Your task to perform on an android device: Open maps Image 0: 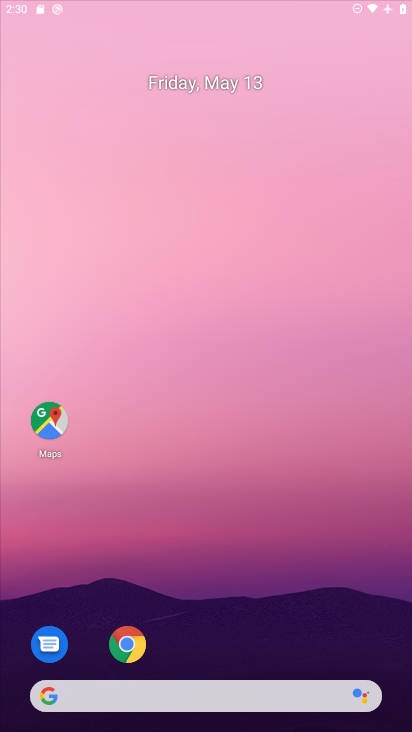
Step 0: drag from (350, 636) to (215, 41)
Your task to perform on an android device: Open maps Image 1: 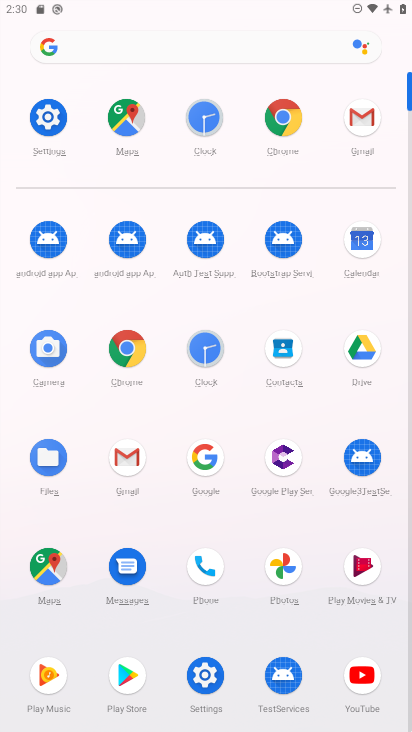
Step 1: click (56, 563)
Your task to perform on an android device: Open maps Image 2: 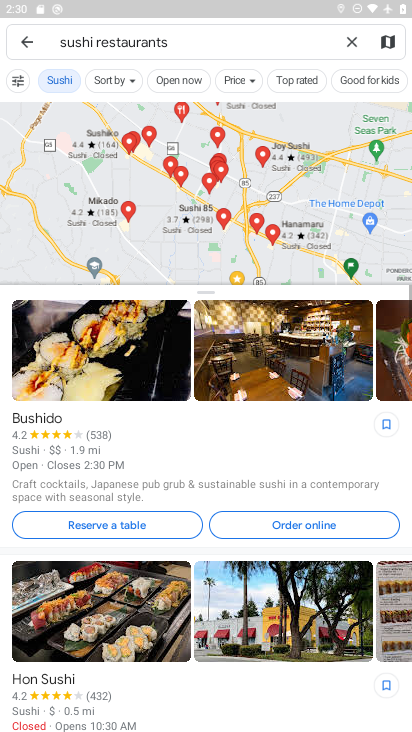
Step 2: click (354, 47)
Your task to perform on an android device: Open maps Image 3: 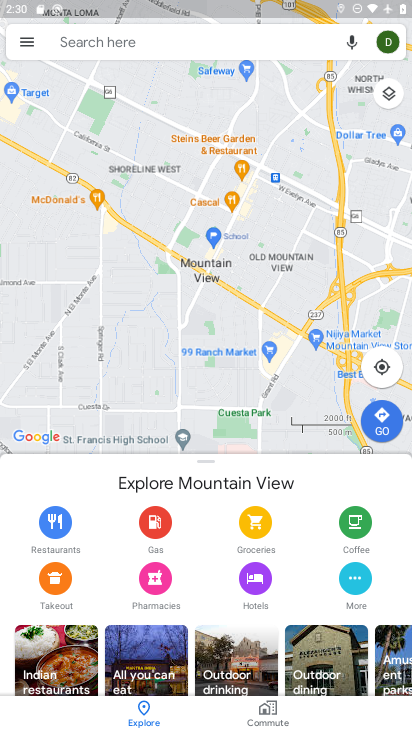
Step 3: task complete